Your task to perform on an android device: turn off wifi Image 0: 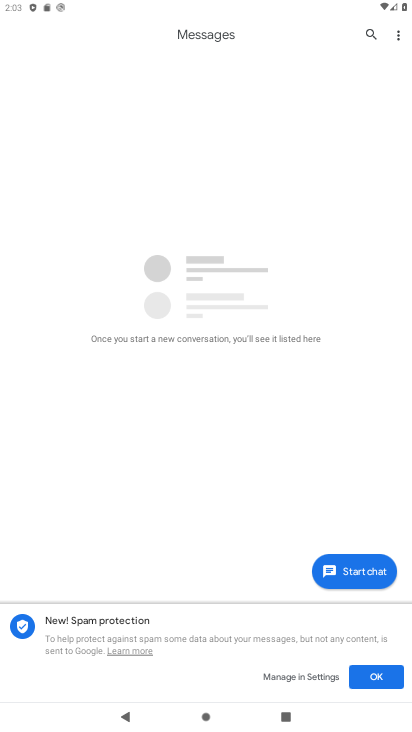
Step 0: press home button
Your task to perform on an android device: turn off wifi Image 1: 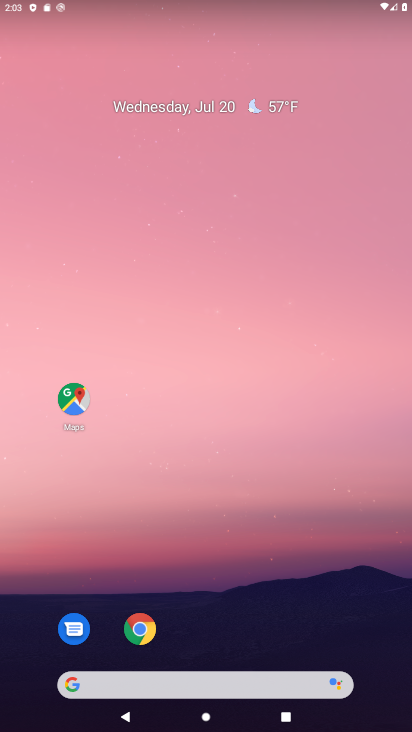
Step 1: drag from (384, 653) to (302, 54)
Your task to perform on an android device: turn off wifi Image 2: 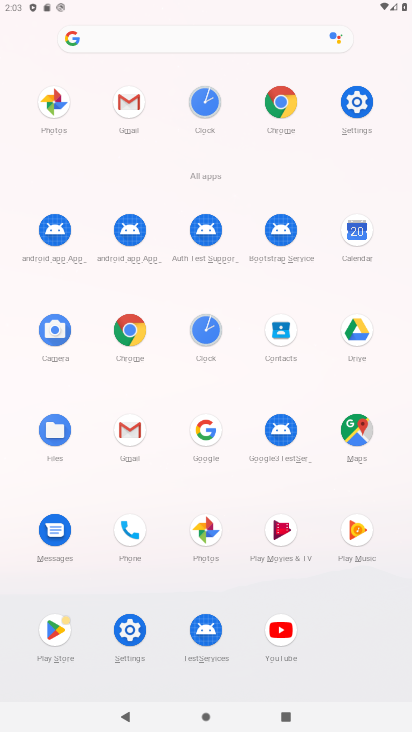
Step 2: click (130, 630)
Your task to perform on an android device: turn off wifi Image 3: 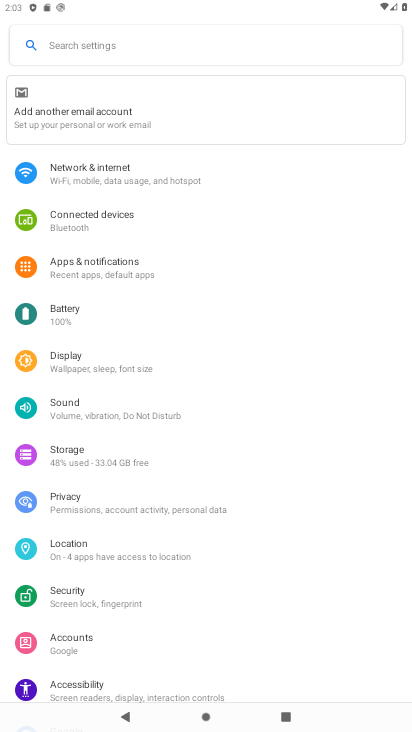
Step 3: click (91, 161)
Your task to perform on an android device: turn off wifi Image 4: 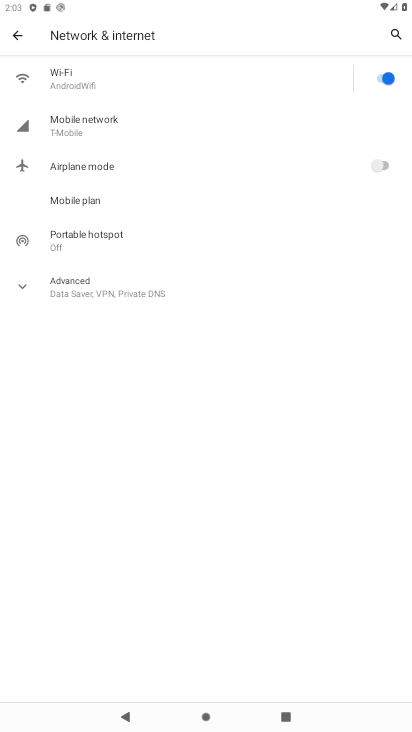
Step 4: click (381, 79)
Your task to perform on an android device: turn off wifi Image 5: 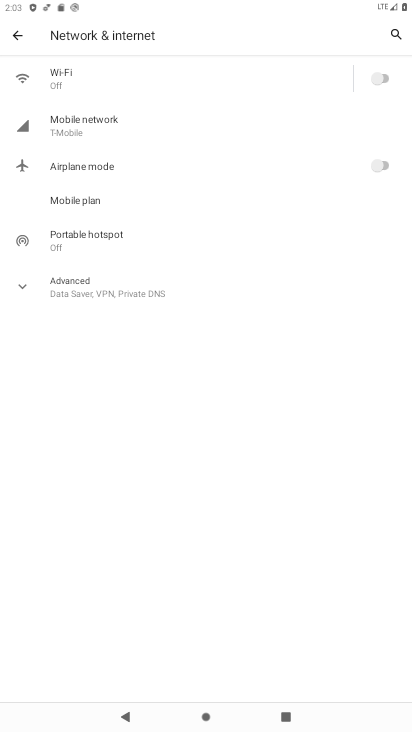
Step 5: task complete